Your task to perform on an android device: Open Chrome and go to settings Image 0: 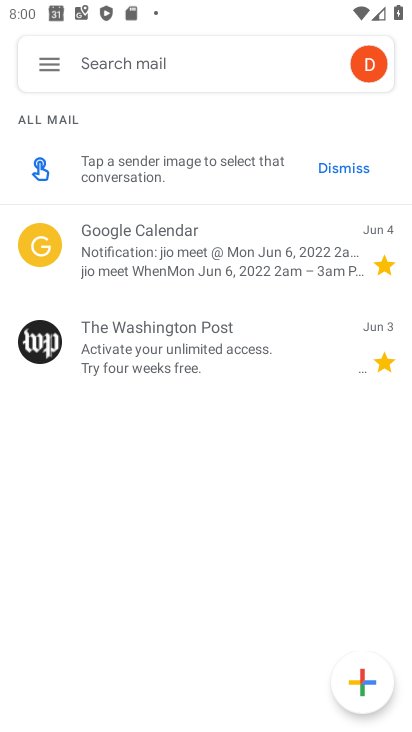
Step 0: press home button
Your task to perform on an android device: Open Chrome and go to settings Image 1: 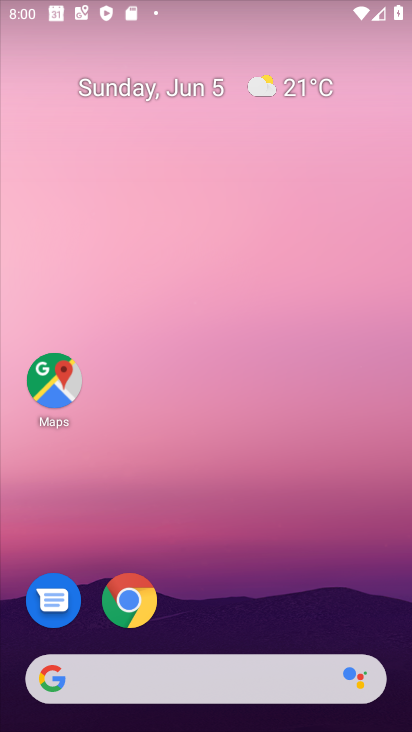
Step 1: click (152, 595)
Your task to perform on an android device: Open Chrome and go to settings Image 2: 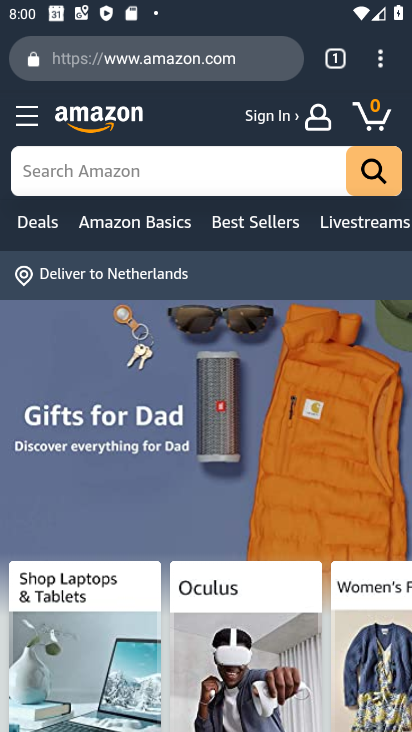
Step 2: click (373, 54)
Your task to perform on an android device: Open Chrome and go to settings Image 3: 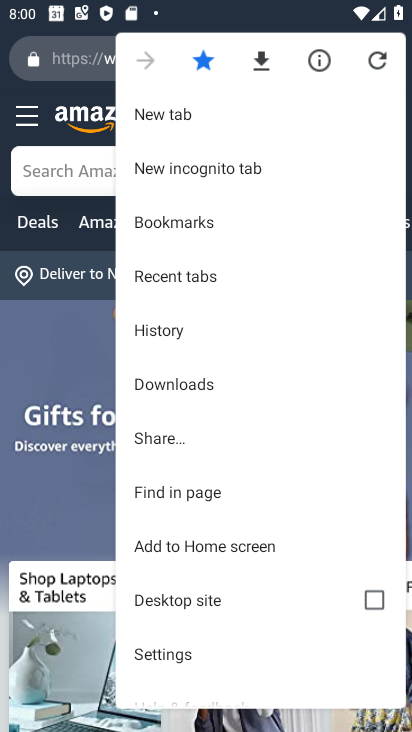
Step 3: click (151, 651)
Your task to perform on an android device: Open Chrome and go to settings Image 4: 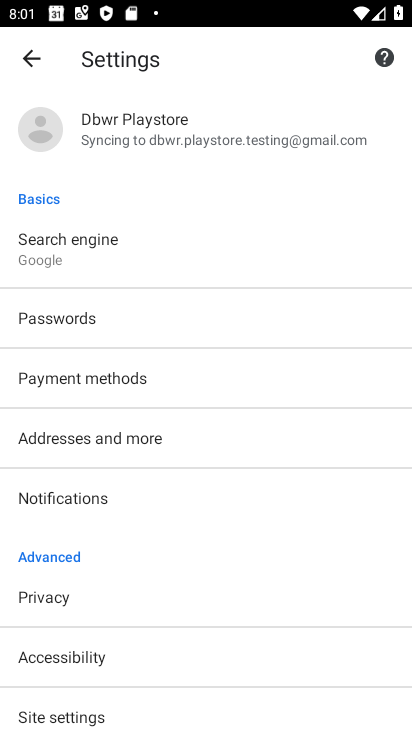
Step 4: task complete